Your task to perform on an android device: Find coffee shops on Maps Image 0: 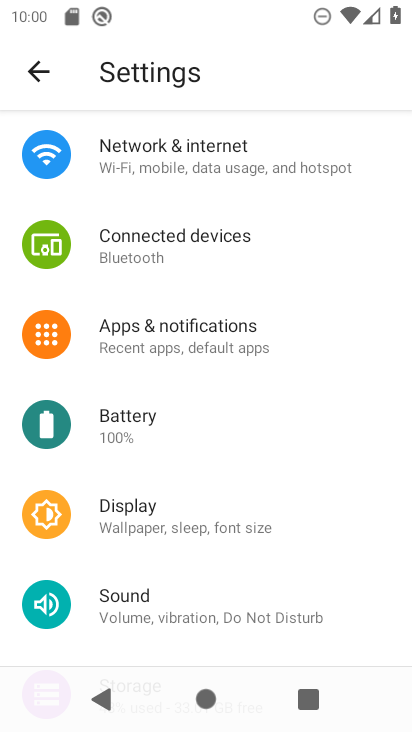
Step 0: press home button
Your task to perform on an android device: Find coffee shops on Maps Image 1: 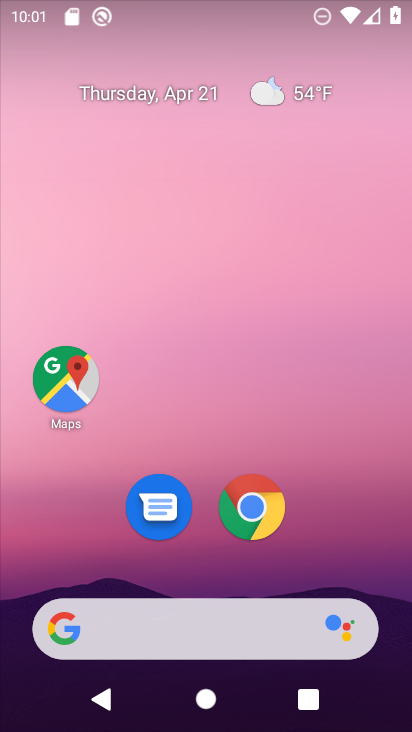
Step 1: click (72, 383)
Your task to perform on an android device: Find coffee shops on Maps Image 2: 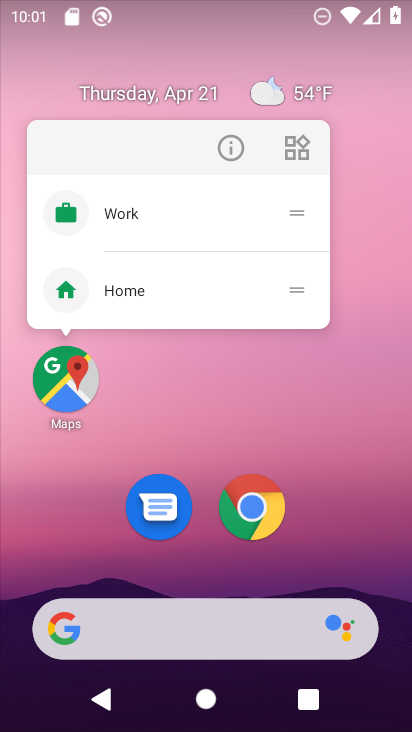
Step 2: click (64, 378)
Your task to perform on an android device: Find coffee shops on Maps Image 3: 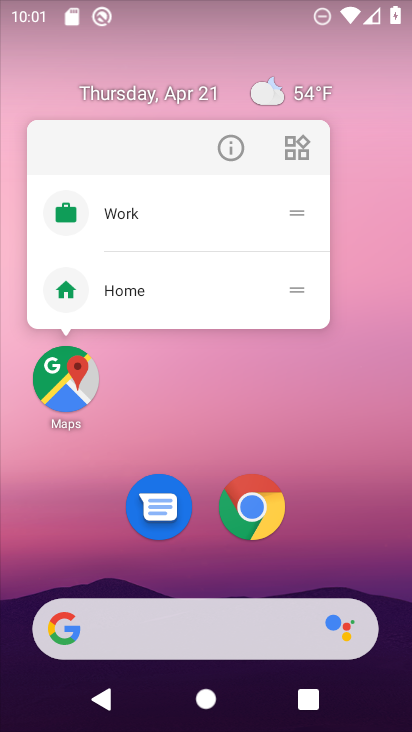
Step 3: click (68, 382)
Your task to perform on an android device: Find coffee shops on Maps Image 4: 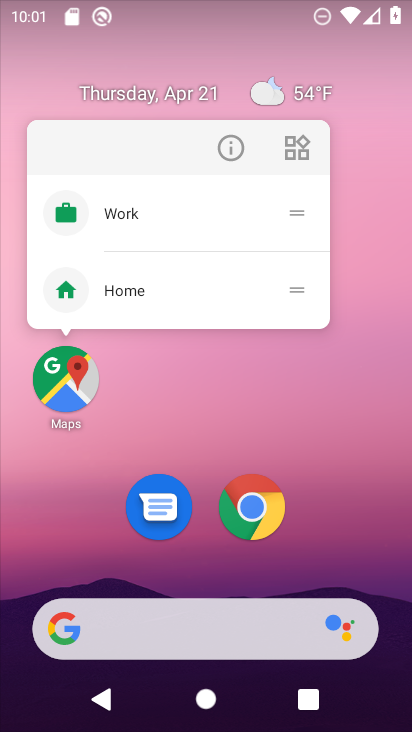
Step 4: click (68, 383)
Your task to perform on an android device: Find coffee shops on Maps Image 5: 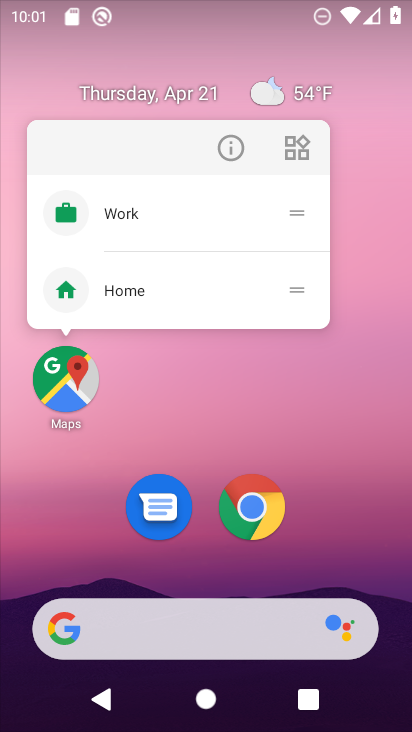
Step 5: click (70, 394)
Your task to perform on an android device: Find coffee shops on Maps Image 6: 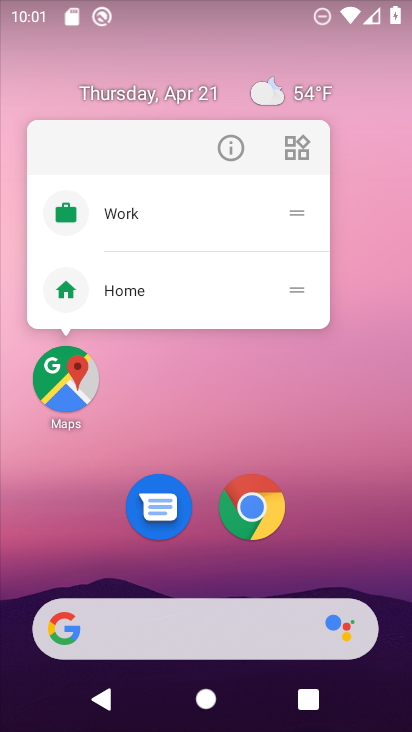
Step 6: click (66, 394)
Your task to perform on an android device: Find coffee shops on Maps Image 7: 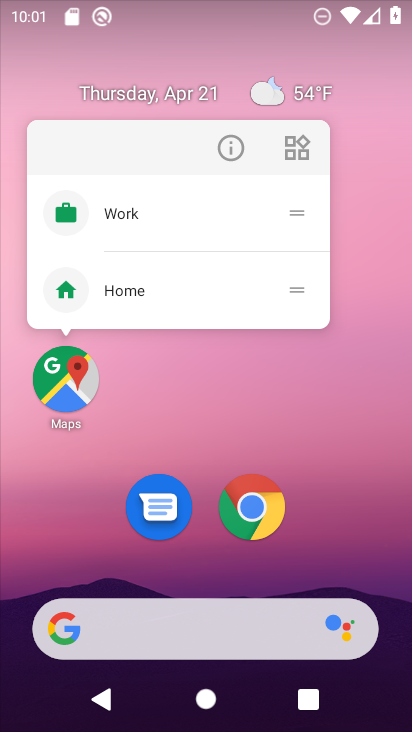
Step 7: click (67, 380)
Your task to perform on an android device: Find coffee shops on Maps Image 8: 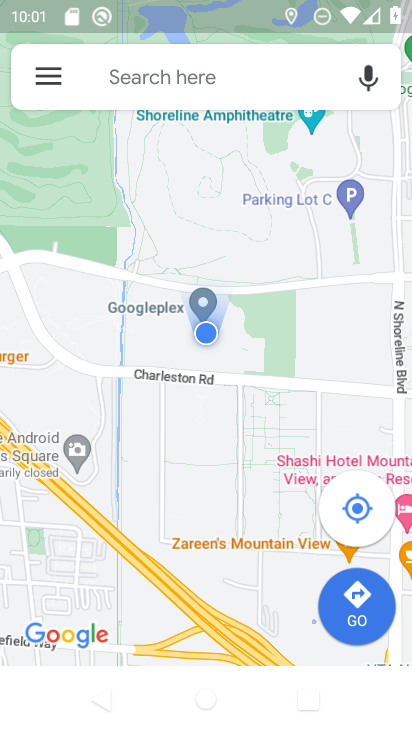
Step 8: click (190, 80)
Your task to perform on an android device: Find coffee shops on Maps Image 9: 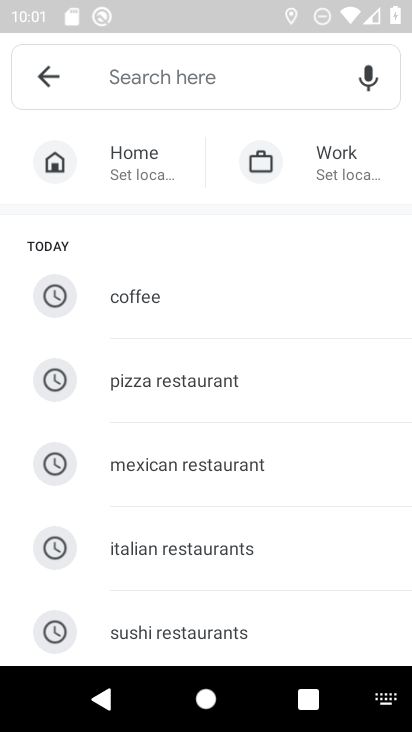
Step 9: click (140, 291)
Your task to perform on an android device: Find coffee shops on Maps Image 10: 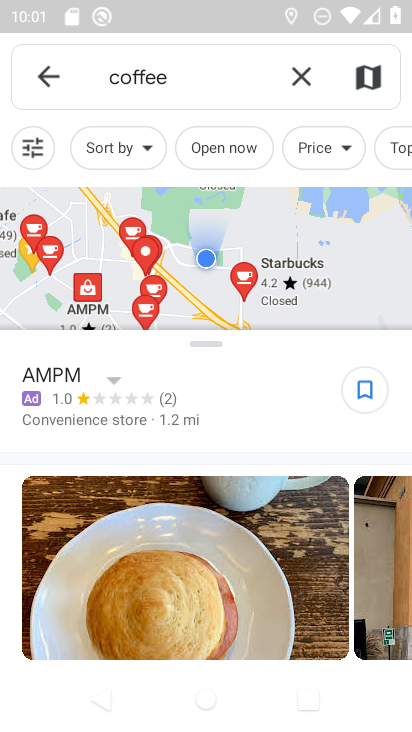
Step 10: task complete